Your task to perform on an android device: turn on priority inbox in the gmail app Image 0: 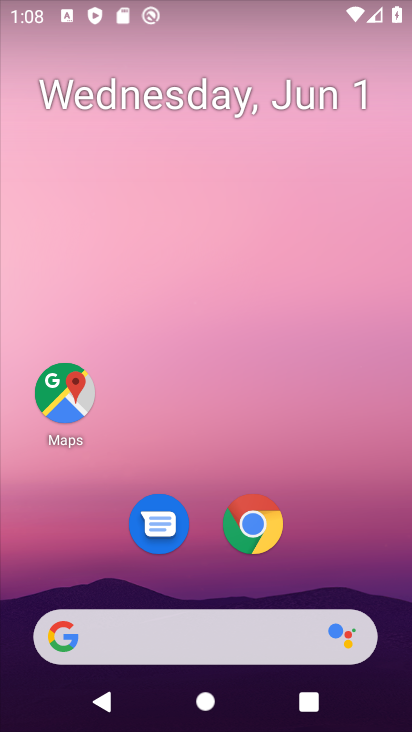
Step 0: drag from (309, 540) to (249, 4)
Your task to perform on an android device: turn on priority inbox in the gmail app Image 1: 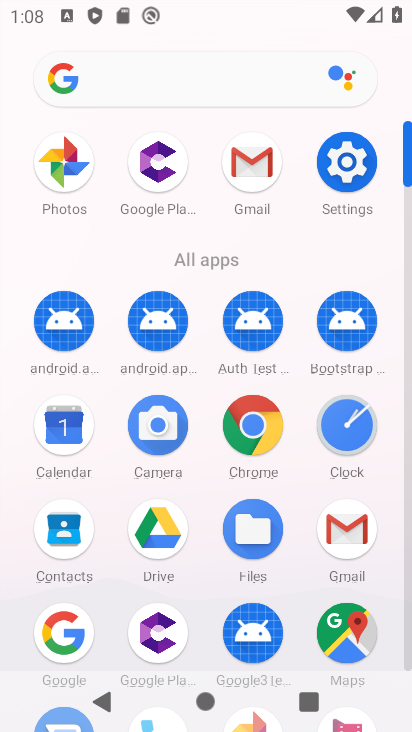
Step 1: click (258, 151)
Your task to perform on an android device: turn on priority inbox in the gmail app Image 2: 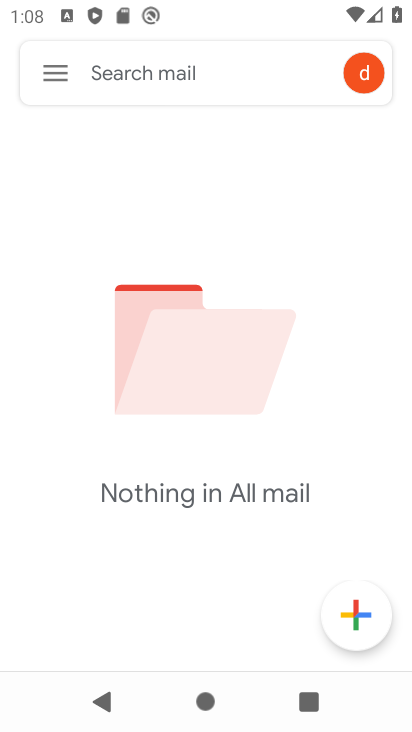
Step 2: click (58, 70)
Your task to perform on an android device: turn on priority inbox in the gmail app Image 3: 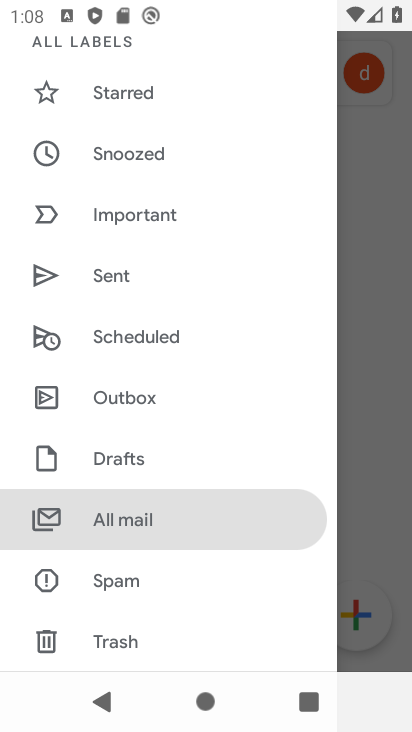
Step 3: drag from (195, 580) to (202, 287)
Your task to perform on an android device: turn on priority inbox in the gmail app Image 4: 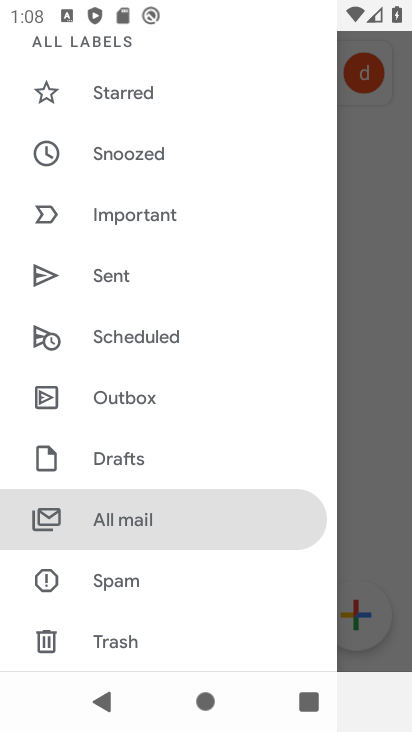
Step 4: drag from (197, 427) to (269, 172)
Your task to perform on an android device: turn on priority inbox in the gmail app Image 5: 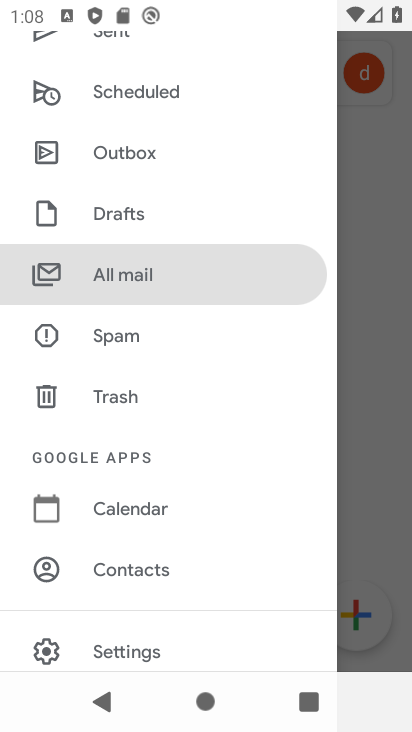
Step 5: click (172, 638)
Your task to perform on an android device: turn on priority inbox in the gmail app Image 6: 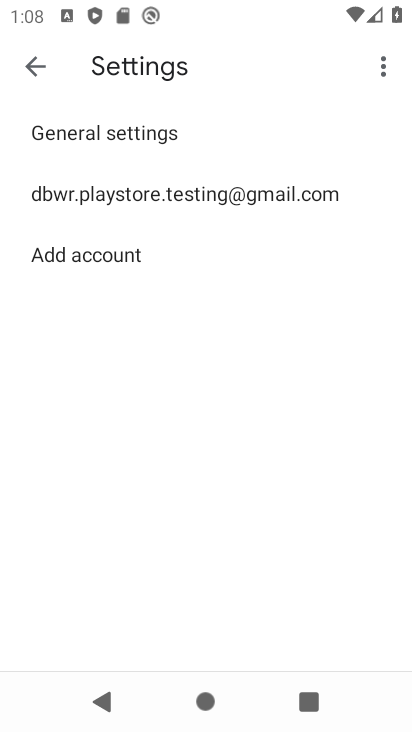
Step 6: click (238, 183)
Your task to perform on an android device: turn on priority inbox in the gmail app Image 7: 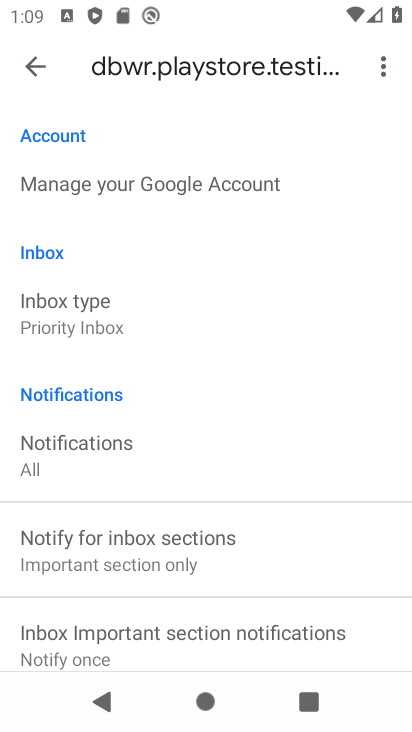
Step 7: task complete